Your task to perform on an android device: Go to network settings Image 0: 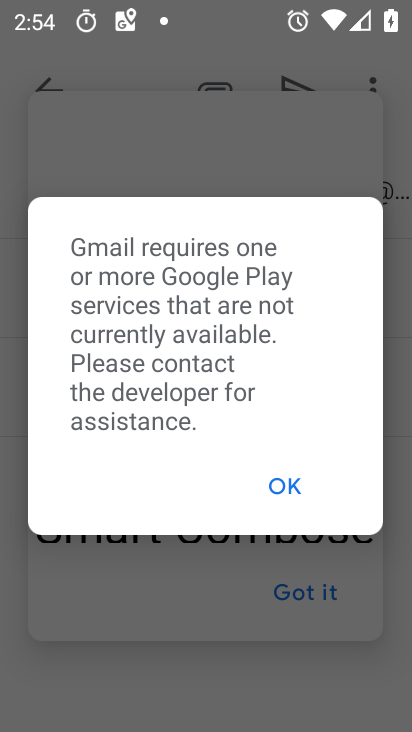
Step 0: press home button
Your task to perform on an android device: Go to network settings Image 1: 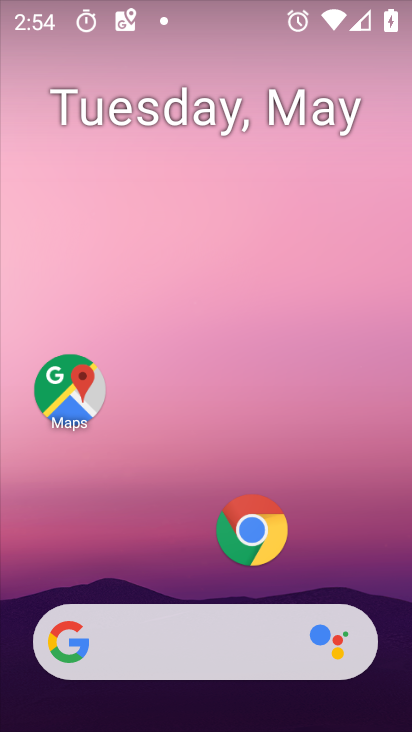
Step 1: drag from (213, 590) to (186, 7)
Your task to perform on an android device: Go to network settings Image 2: 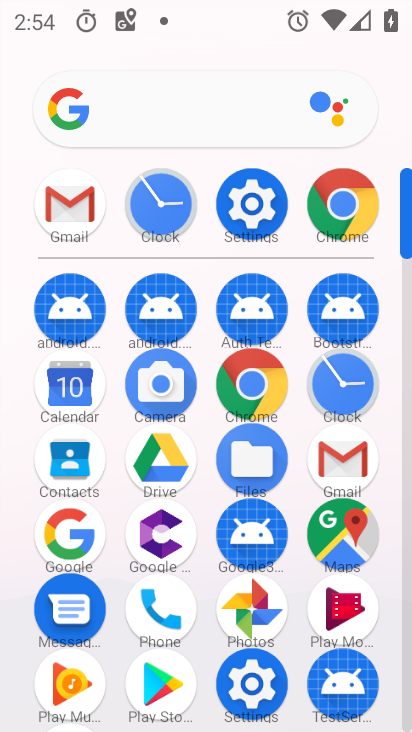
Step 2: click (266, 209)
Your task to perform on an android device: Go to network settings Image 3: 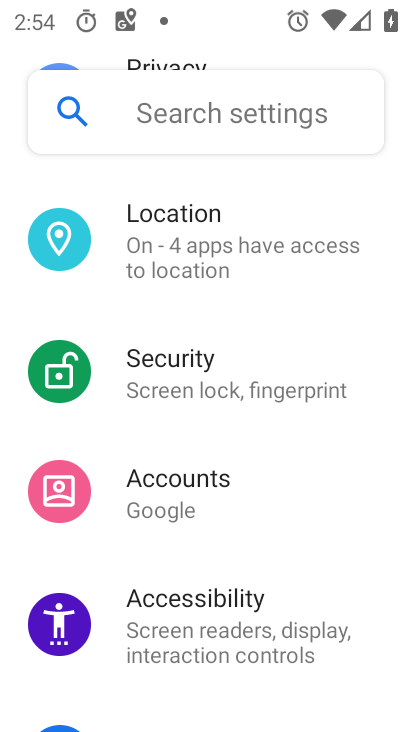
Step 3: drag from (265, 210) to (222, 632)
Your task to perform on an android device: Go to network settings Image 4: 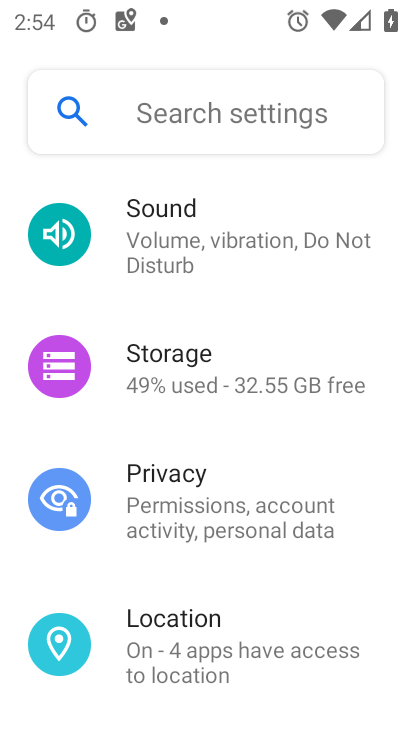
Step 4: drag from (230, 242) to (222, 600)
Your task to perform on an android device: Go to network settings Image 5: 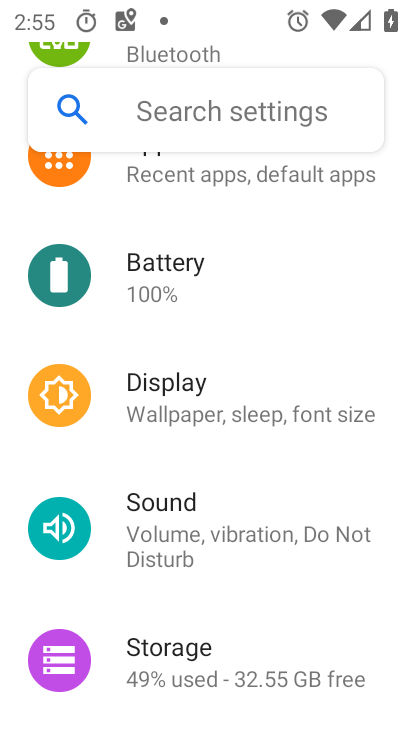
Step 5: drag from (274, 280) to (246, 708)
Your task to perform on an android device: Go to network settings Image 6: 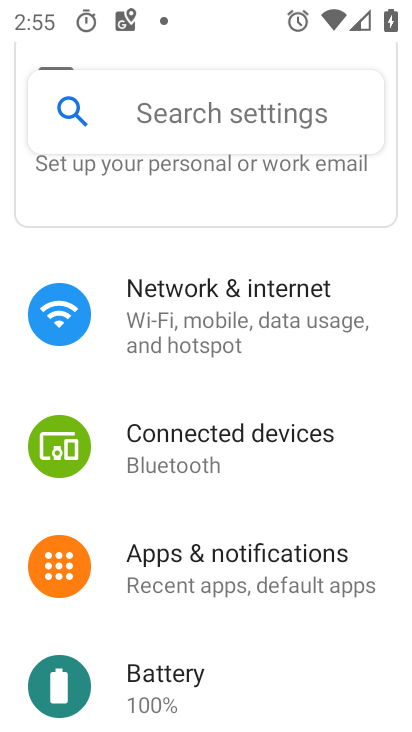
Step 6: click (174, 325)
Your task to perform on an android device: Go to network settings Image 7: 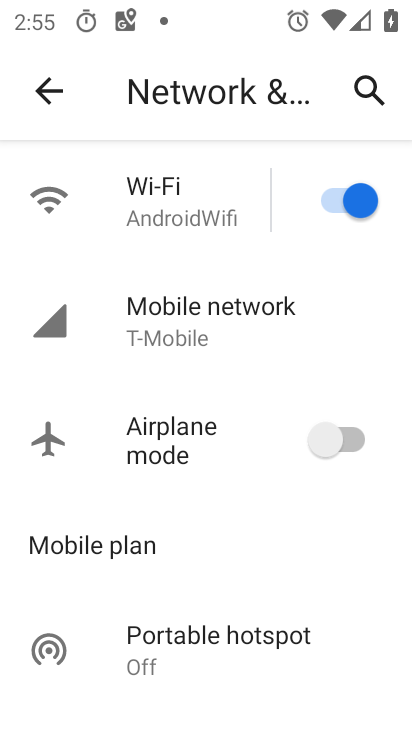
Step 7: click (116, 320)
Your task to perform on an android device: Go to network settings Image 8: 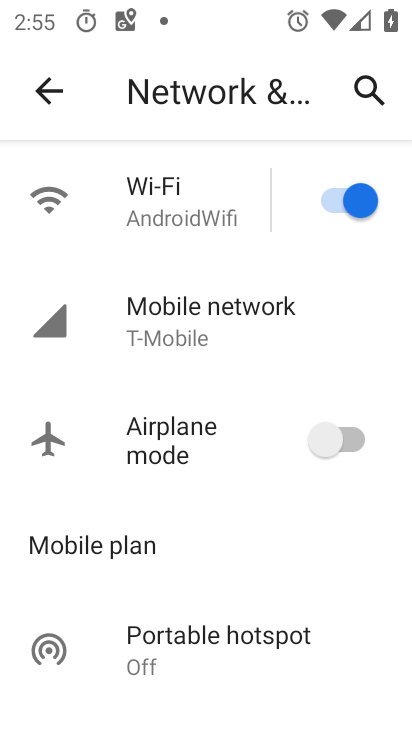
Step 8: task complete